Your task to perform on an android device: Open display settings Image 0: 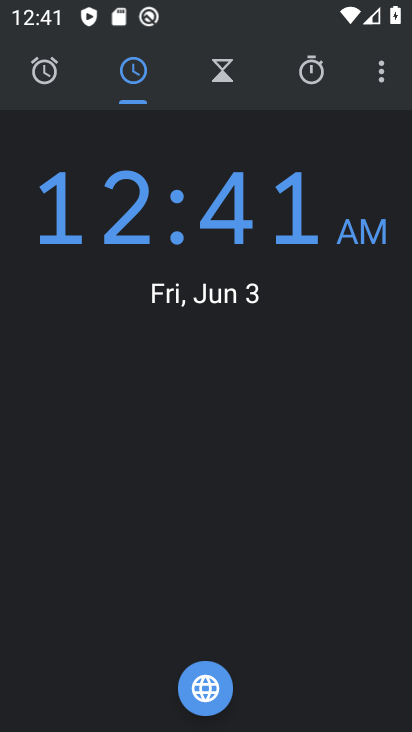
Step 0: task complete